Your task to perform on an android device: clear all cookies in the chrome app Image 0: 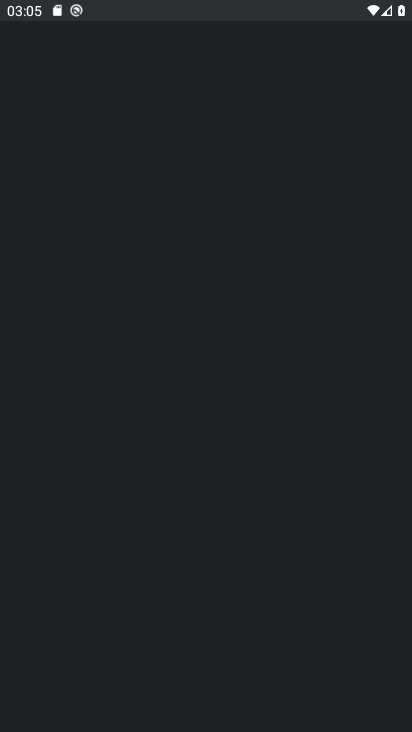
Step 0: drag from (321, 198) to (298, 37)
Your task to perform on an android device: clear all cookies in the chrome app Image 1: 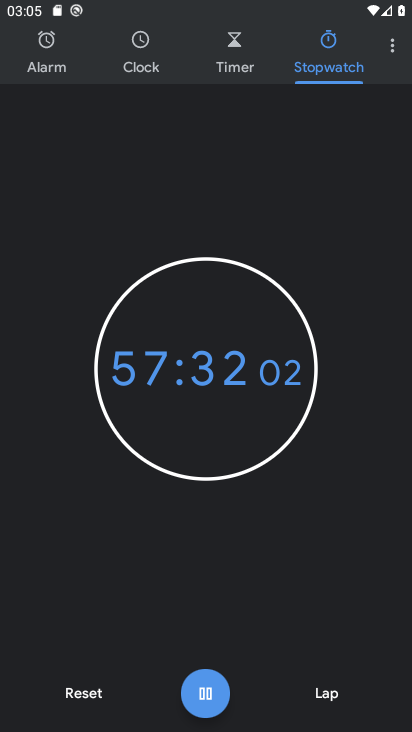
Step 1: press home button
Your task to perform on an android device: clear all cookies in the chrome app Image 2: 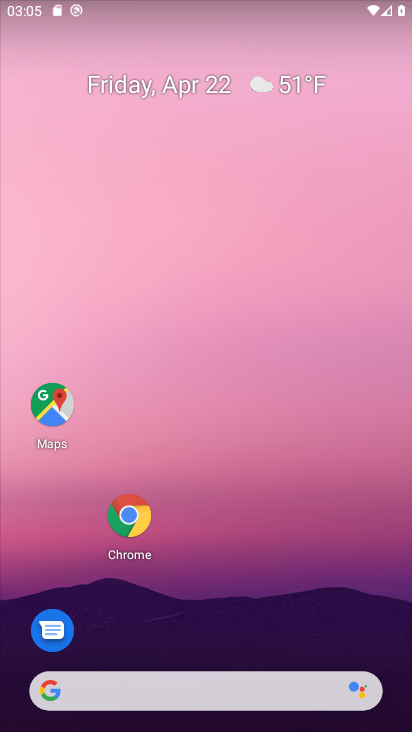
Step 2: drag from (386, 634) to (382, 599)
Your task to perform on an android device: clear all cookies in the chrome app Image 3: 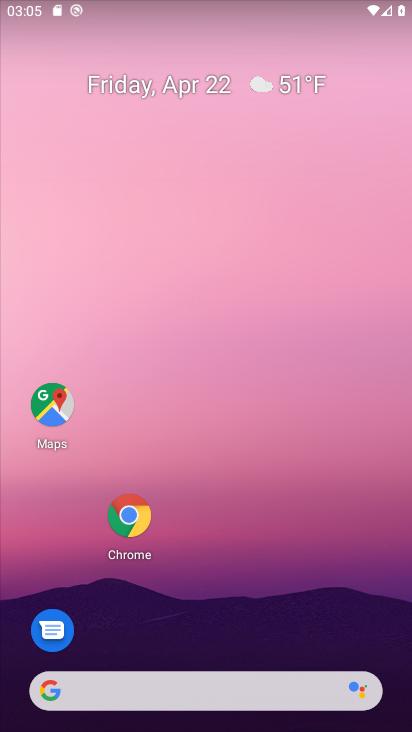
Step 3: drag from (382, 647) to (326, 18)
Your task to perform on an android device: clear all cookies in the chrome app Image 4: 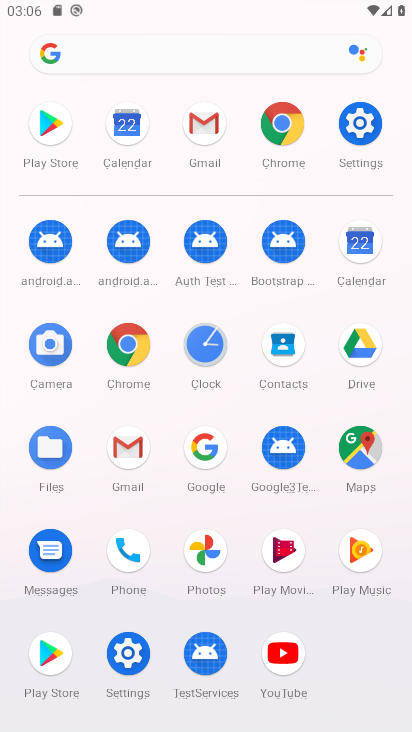
Step 4: click (280, 124)
Your task to perform on an android device: clear all cookies in the chrome app Image 5: 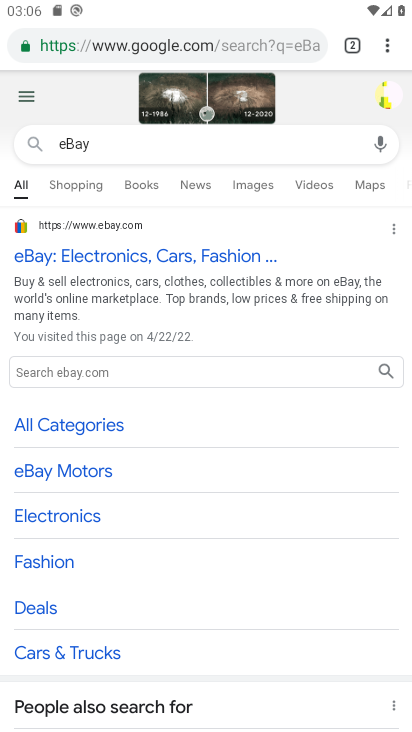
Step 5: click (385, 44)
Your task to perform on an android device: clear all cookies in the chrome app Image 6: 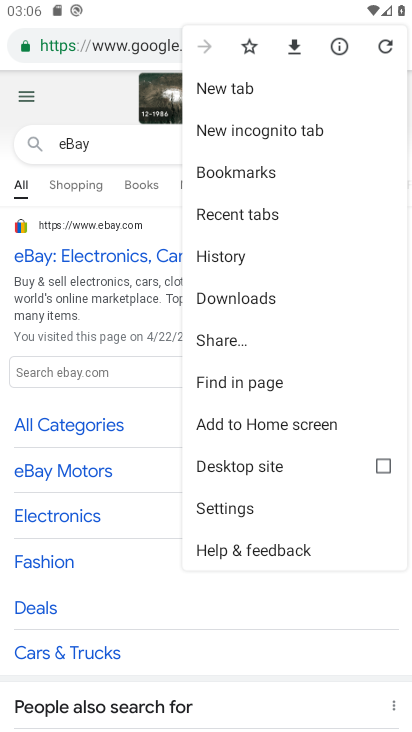
Step 6: click (226, 258)
Your task to perform on an android device: clear all cookies in the chrome app Image 7: 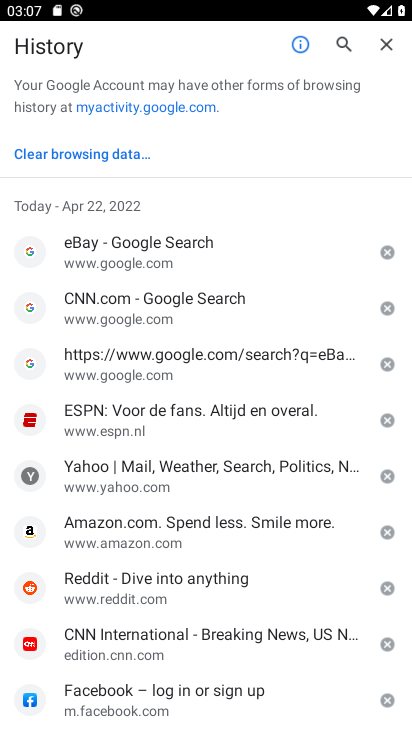
Step 7: click (109, 145)
Your task to perform on an android device: clear all cookies in the chrome app Image 8: 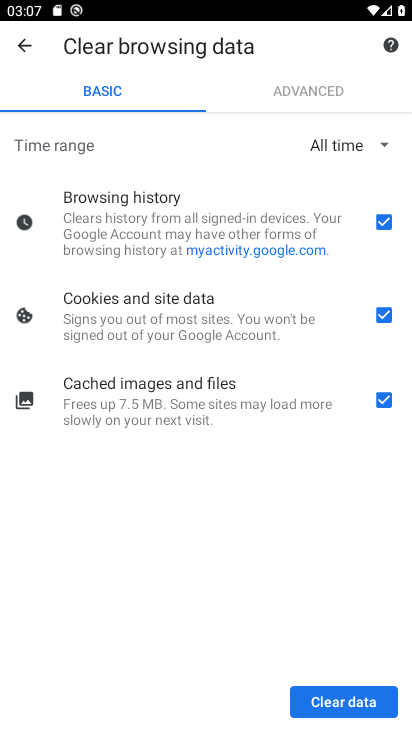
Step 8: click (359, 705)
Your task to perform on an android device: clear all cookies in the chrome app Image 9: 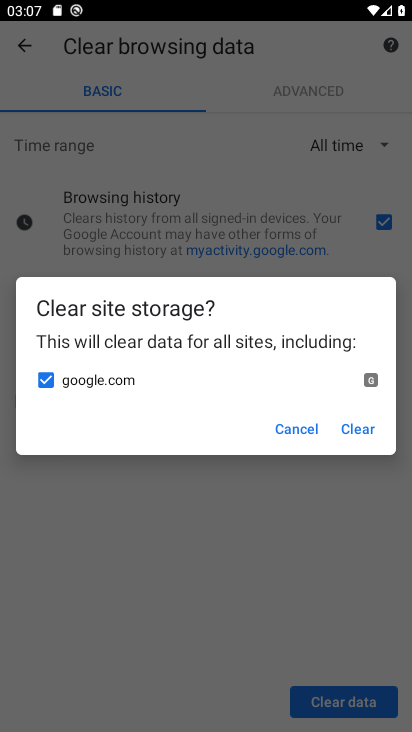
Step 9: click (358, 418)
Your task to perform on an android device: clear all cookies in the chrome app Image 10: 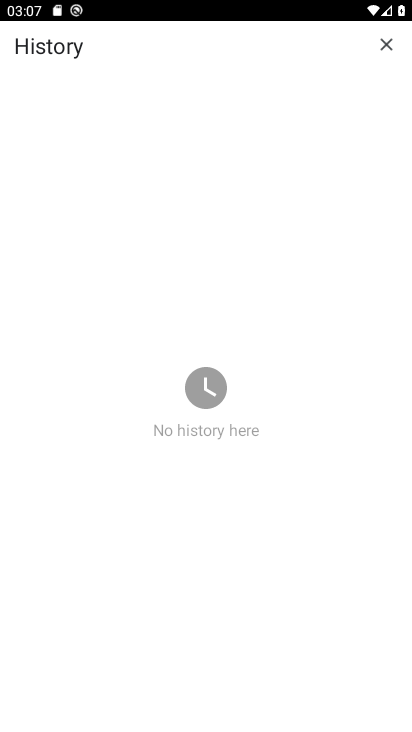
Step 10: task complete